Your task to perform on an android device: remove spam from my inbox in the gmail app Image 0: 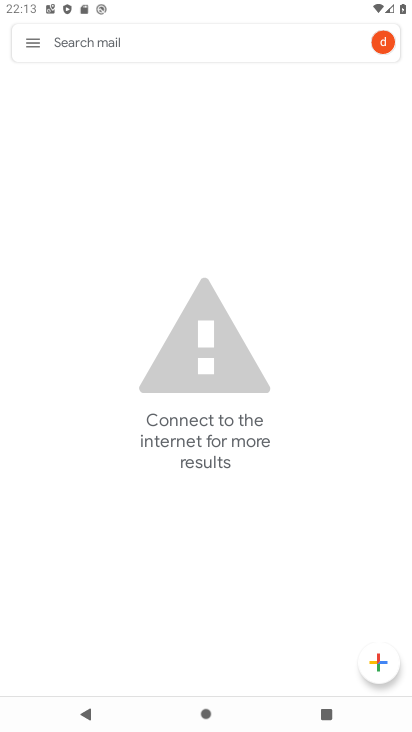
Step 0: press home button
Your task to perform on an android device: remove spam from my inbox in the gmail app Image 1: 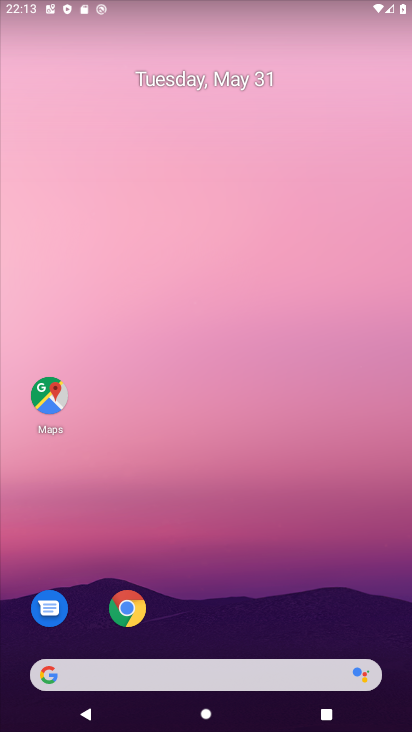
Step 1: drag from (220, 659) to (262, 29)
Your task to perform on an android device: remove spam from my inbox in the gmail app Image 2: 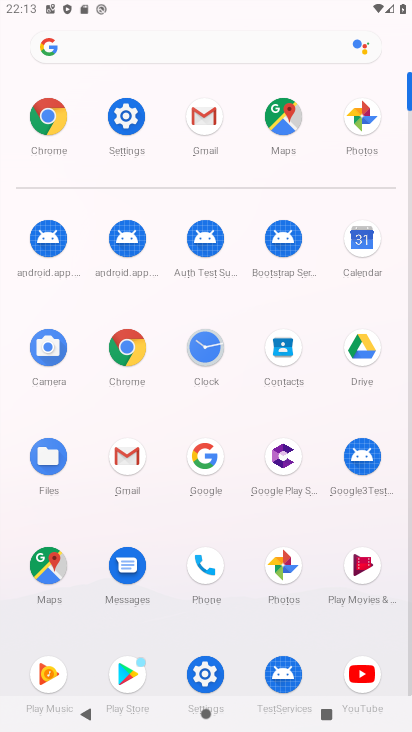
Step 2: click (143, 463)
Your task to perform on an android device: remove spam from my inbox in the gmail app Image 3: 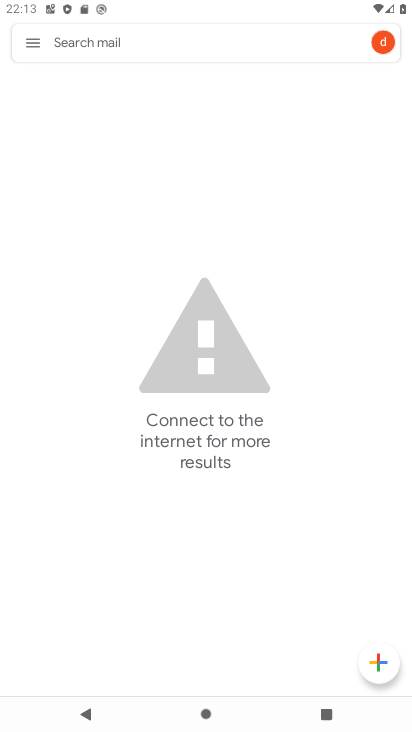
Step 3: click (35, 50)
Your task to perform on an android device: remove spam from my inbox in the gmail app Image 4: 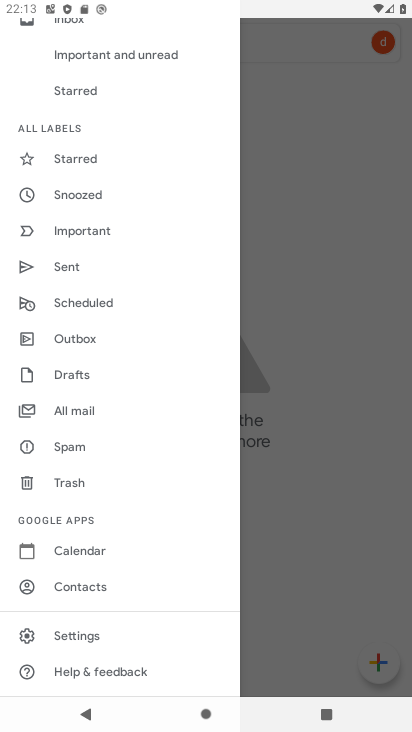
Step 4: click (53, 443)
Your task to perform on an android device: remove spam from my inbox in the gmail app Image 5: 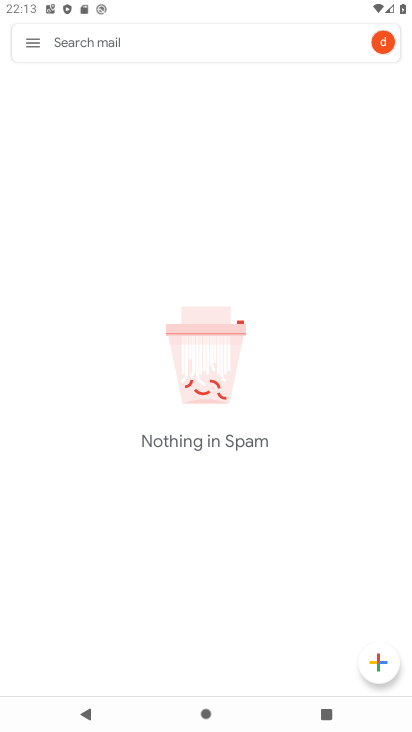
Step 5: task complete